Your task to perform on an android device: Open ESPN.com Image 0: 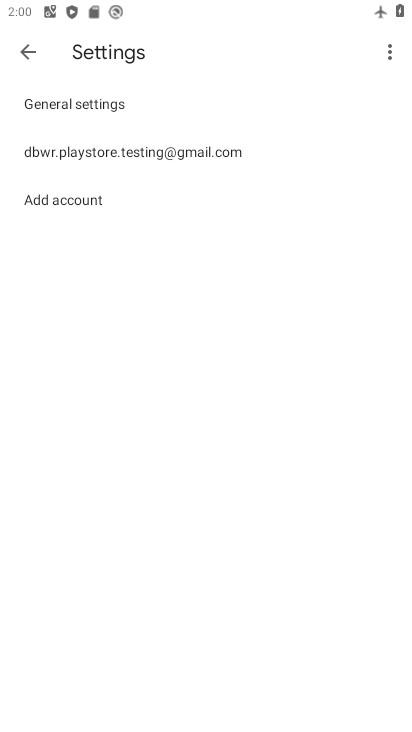
Step 0: press home button
Your task to perform on an android device: Open ESPN.com Image 1: 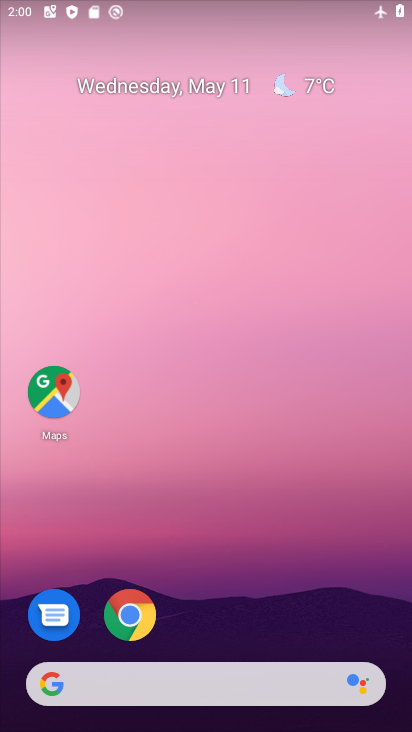
Step 1: click (136, 619)
Your task to perform on an android device: Open ESPN.com Image 2: 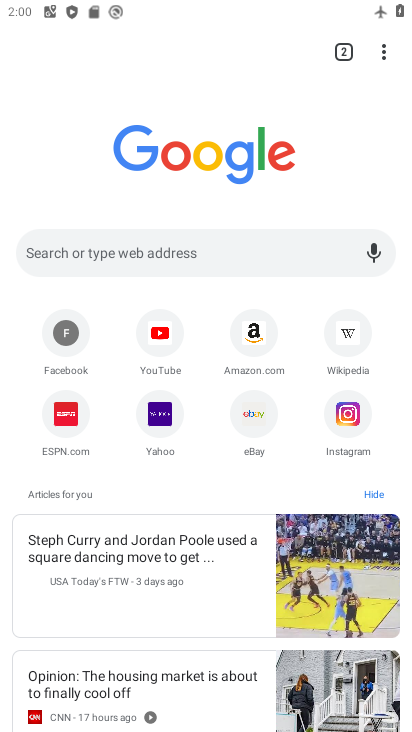
Step 2: click (70, 414)
Your task to perform on an android device: Open ESPN.com Image 3: 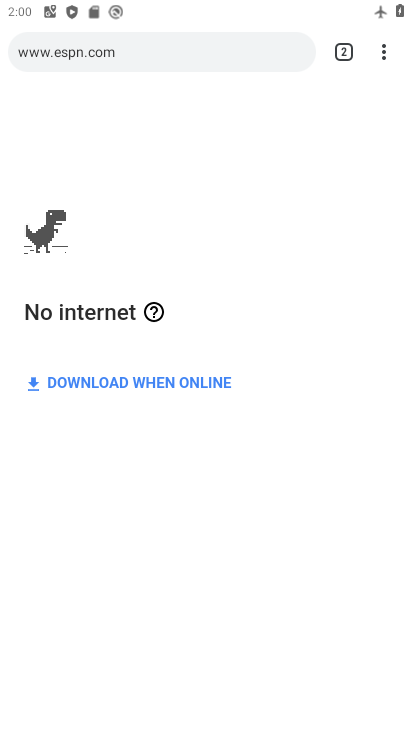
Step 3: task complete